Your task to perform on an android device: empty trash in the gmail app Image 0: 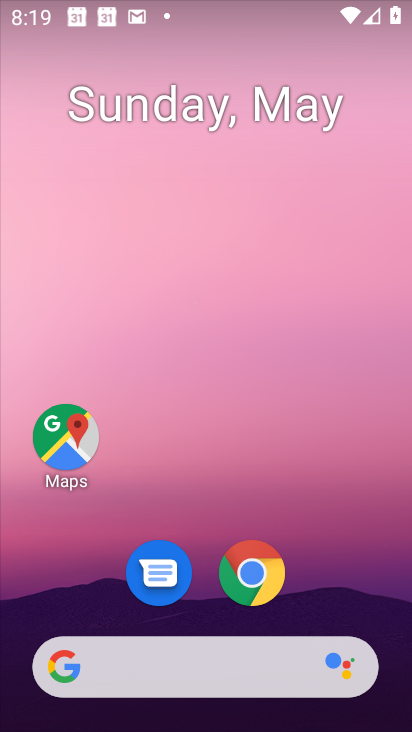
Step 0: drag from (236, 450) to (138, 1)
Your task to perform on an android device: empty trash in the gmail app Image 1: 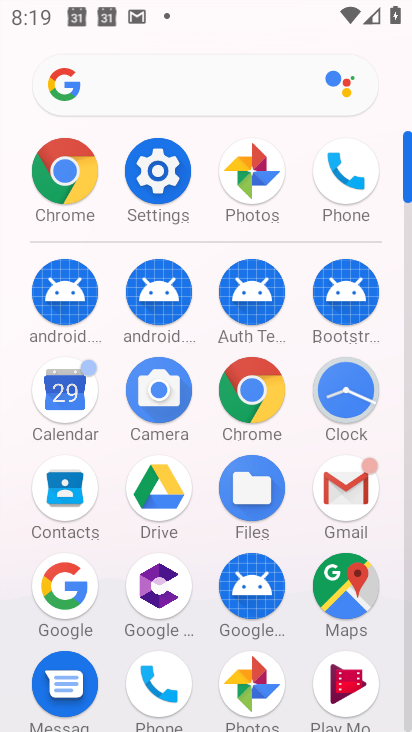
Step 1: click (355, 494)
Your task to perform on an android device: empty trash in the gmail app Image 2: 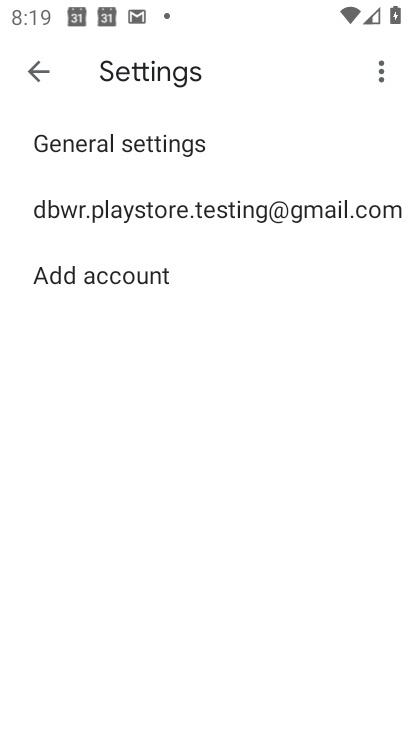
Step 2: click (35, 60)
Your task to perform on an android device: empty trash in the gmail app Image 3: 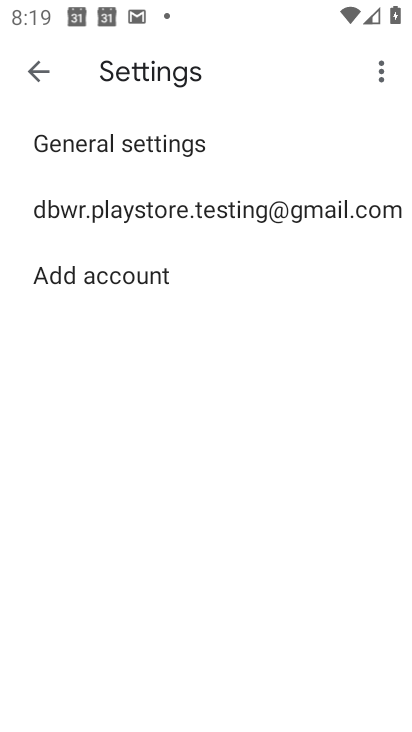
Step 3: click (35, 61)
Your task to perform on an android device: empty trash in the gmail app Image 4: 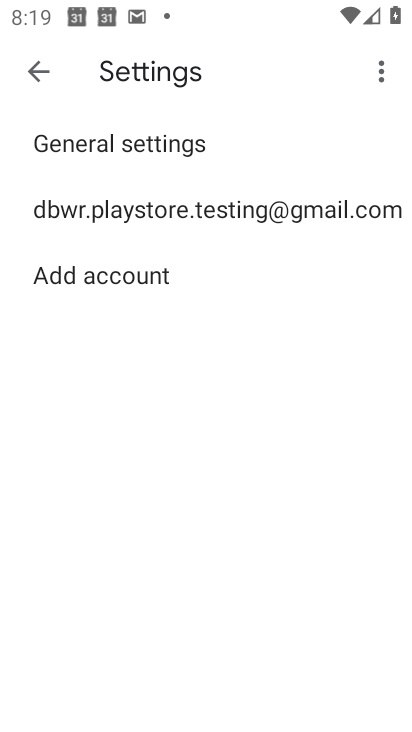
Step 4: click (35, 69)
Your task to perform on an android device: empty trash in the gmail app Image 5: 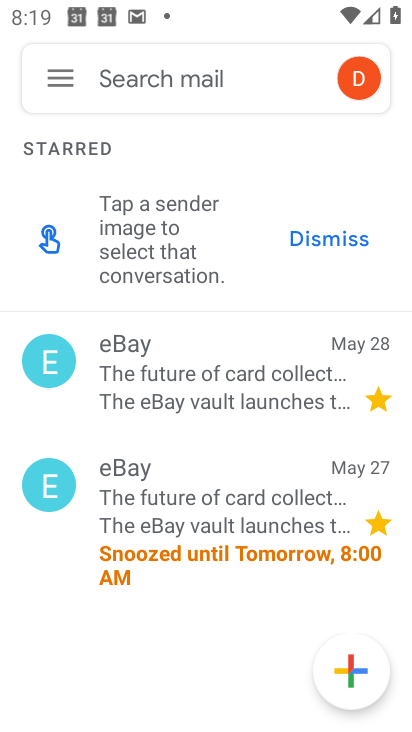
Step 5: click (65, 77)
Your task to perform on an android device: empty trash in the gmail app Image 6: 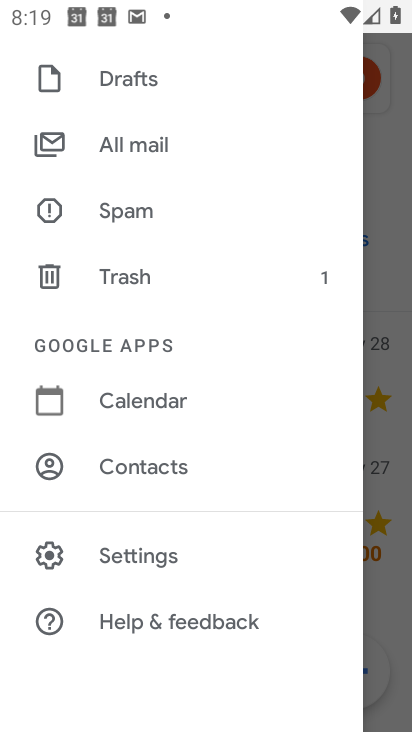
Step 6: click (148, 279)
Your task to perform on an android device: empty trash in the gmail app Image 7: 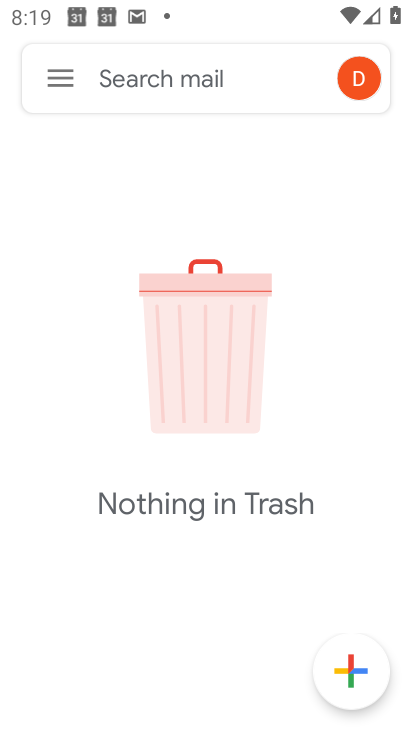
Step 7: task complete